Your task to perform on an android device: Go to Wikipedia Image 0: 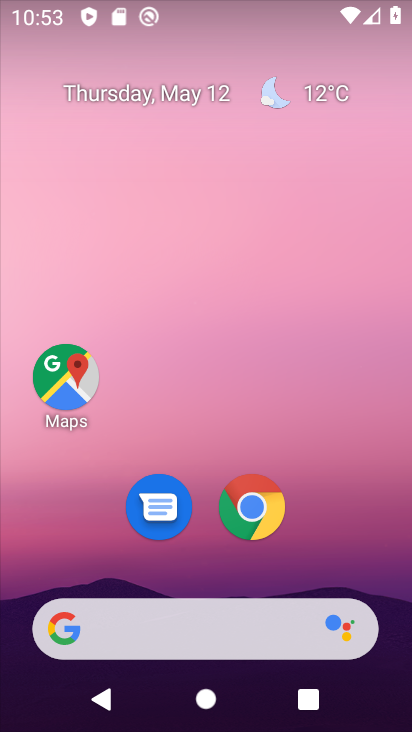
Step 0: click (262, 494)
Your task to perform on an android device: Go to Wikipedia Image 1: 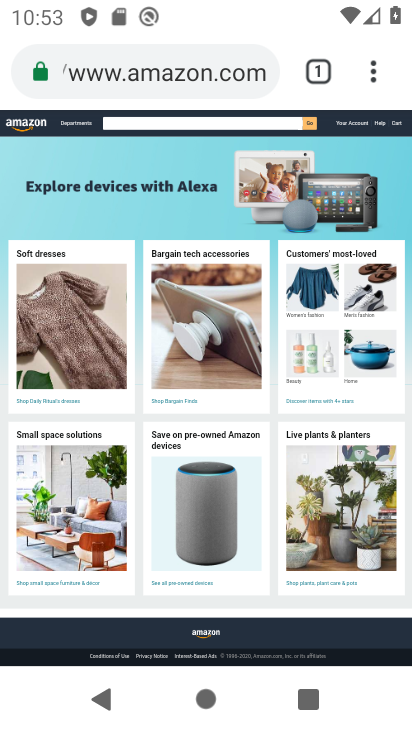
Step 1: click (199, 67)
Your task to perform on an android device: Go to Wikipedia Image 2: 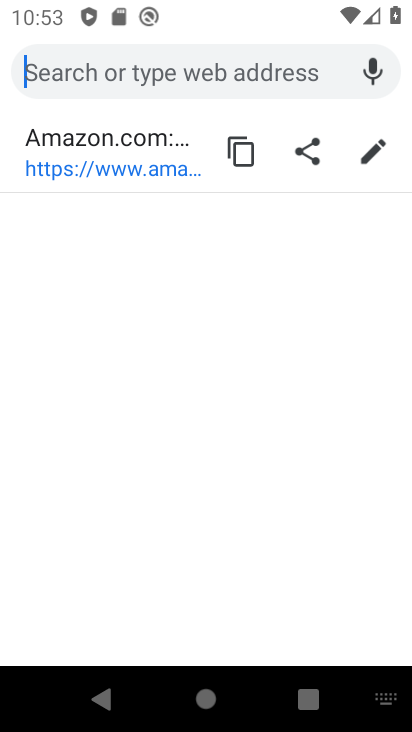
Step 2: type "wikipedia"
Your task to perform on an android device: Go to Wikipedia Image 3: 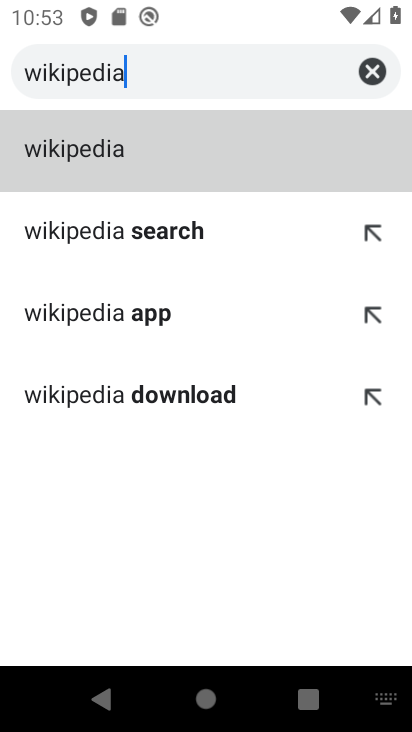
Step 3: click (157, 234)
Your task to perform on an android device: Go to Wikipedia Image 4: 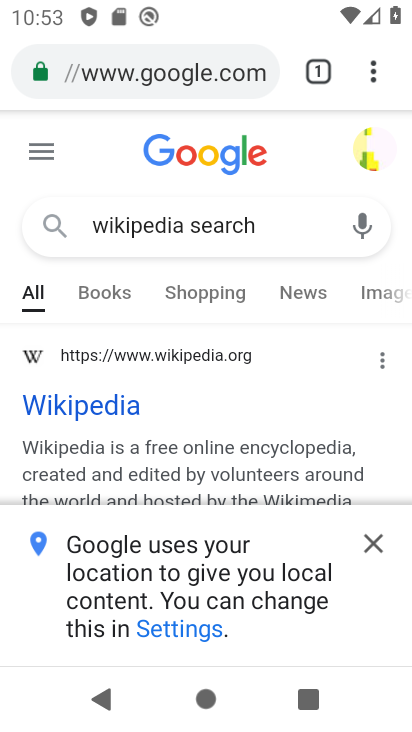
Step 4: click (377, 530)
Your task to perform on an android device: Go to Wikipedia Image 5: 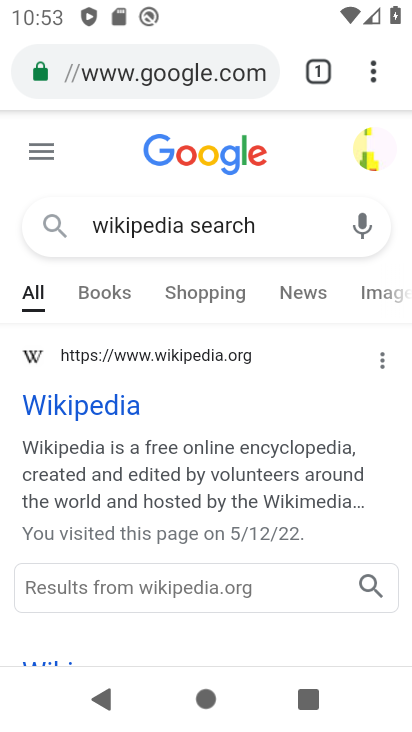
Step 5: task complete